Your task to perform on an android device: turn on translation in the chrome app Image 0: 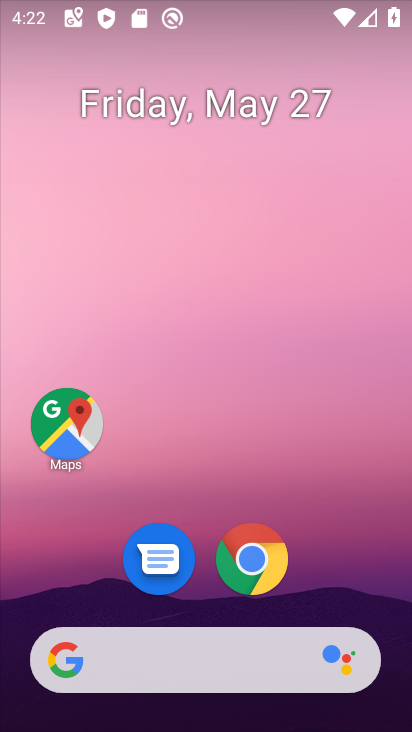
Step 0: click (246, 556)
Your task to perform on an android device: turn on translation in the chrome app Image 1: 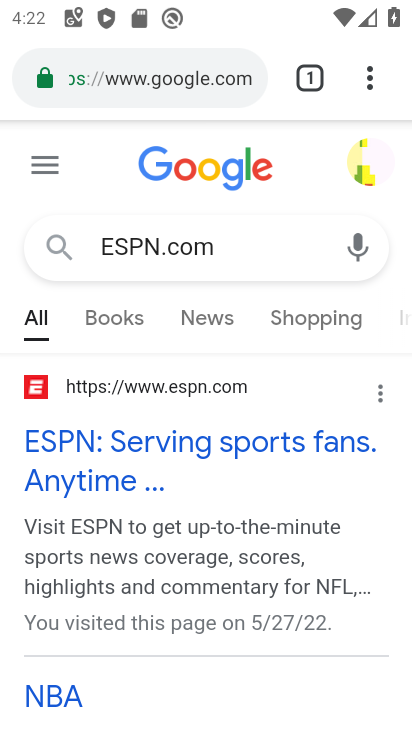
Step 1: click (367, 84)
Your task to perform on an android device: turn on translation in the chrome app Image 2: 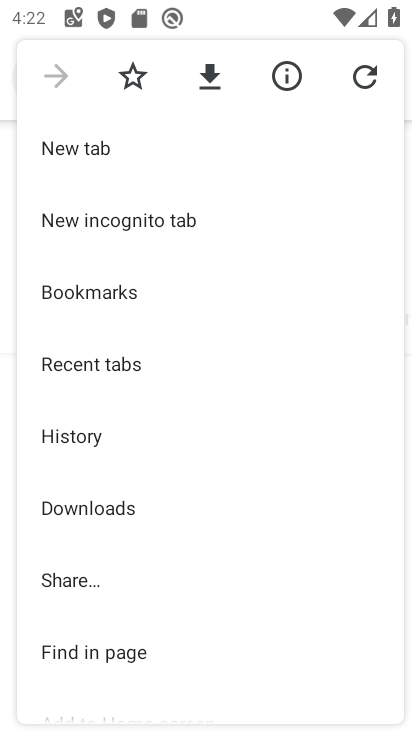
Step 2: drag from (272, 582) to (292, 309)
Your task to perform on an android device: turn on translation in the chrome app Image 3: 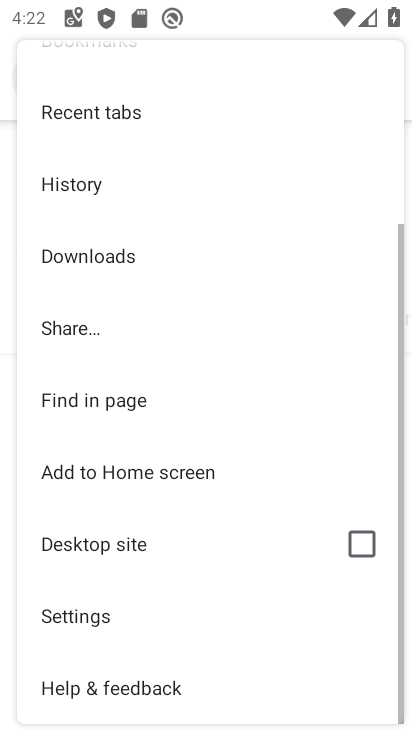
Step 3: drag from (282, 657) to (281, 316)
Your task to perform on an android device: turn on translation in the chrome app Image 4: 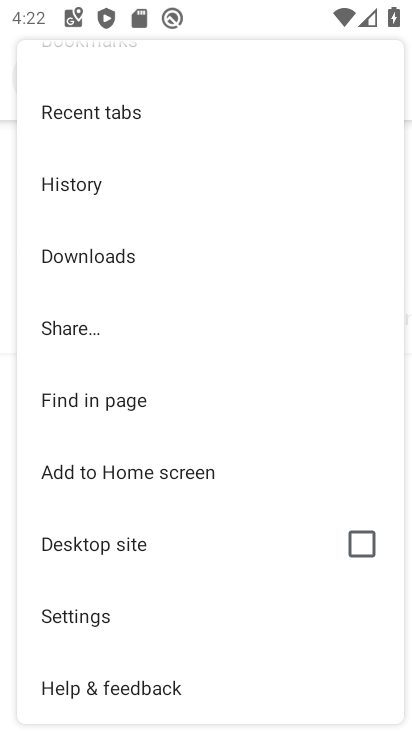
Step 4: click (81, 618)
Your task to perform on an android device: turn on translation in the chrome app Image 5: 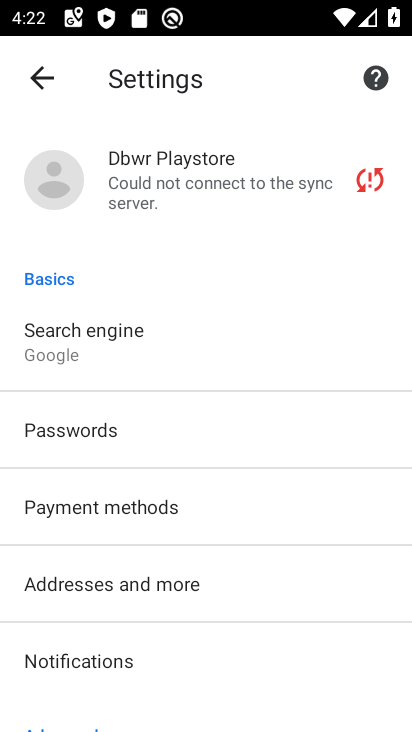
Step 5: drag from (282, 667) to (264, 323)
Your task to perform on an android device: turn on translation in the chrome app Image 6: 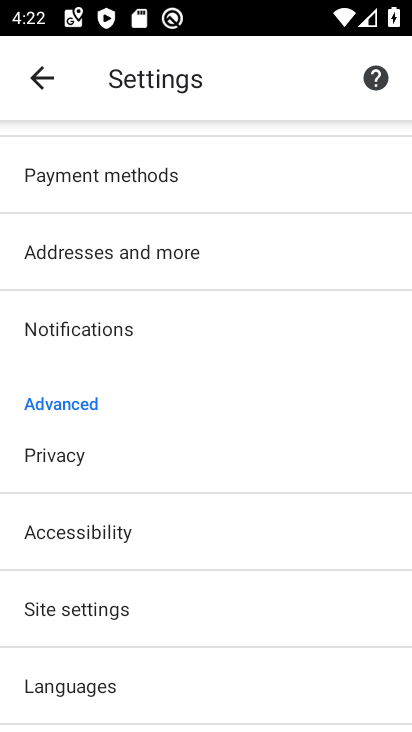
Step 6: click (66, 684)
Your task to perform on an android device: turn on translation in the chrome app Image 7: 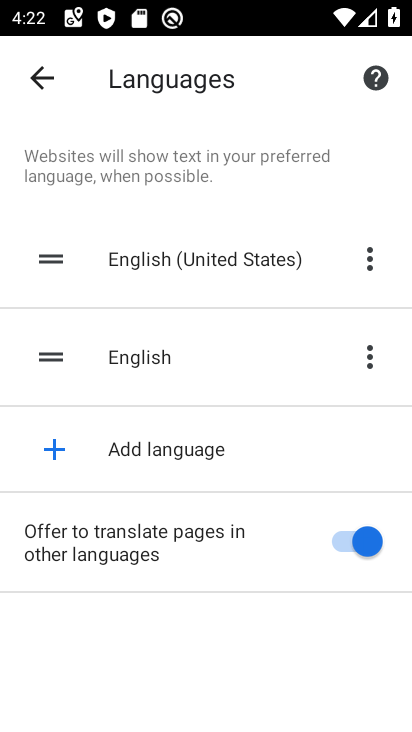
Step 7: task complete